Your task to perform on an android device: Is it going to rain today? Image 0: 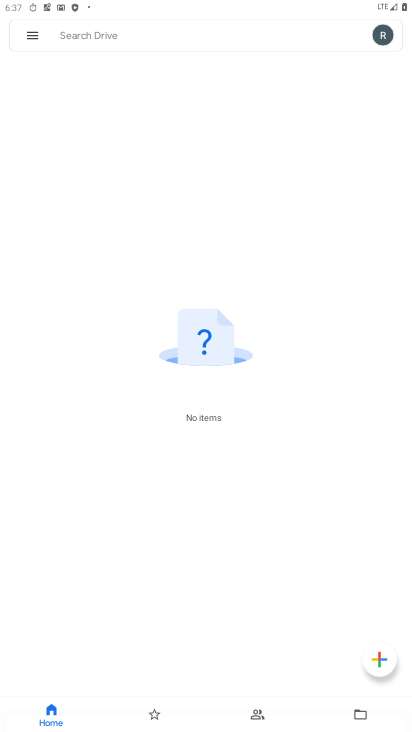
Step 0: press home button
Your task to perform on an android device: Is it going to rain today? Image 1: 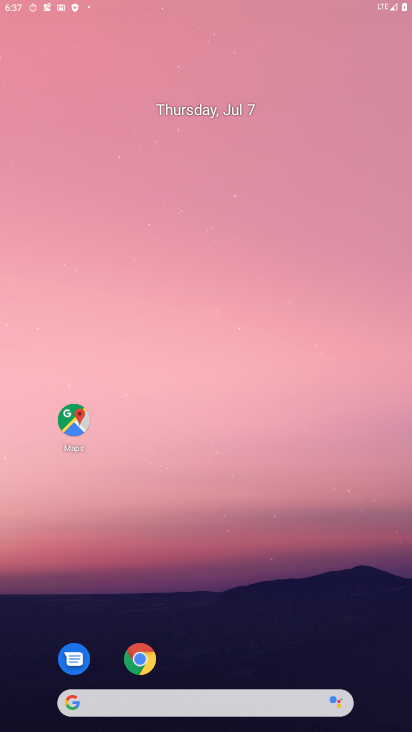
Step 1: drag from (378, 678) to (353, 11)
Your task to perform on an android device: Is it going to rain today? Image 2: 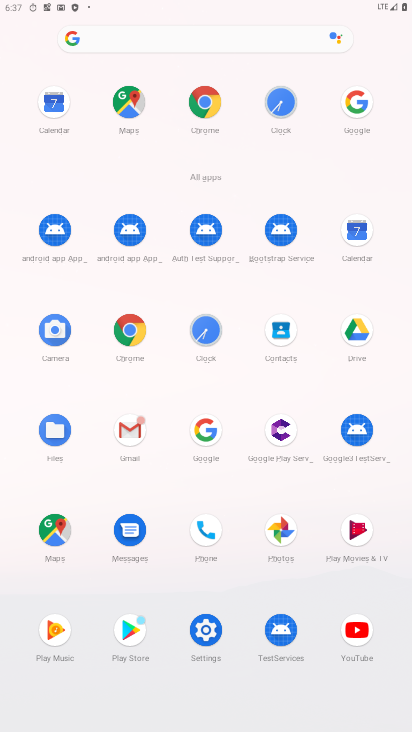
Step 2: click (194, 428)
Your task to perform on an android device: Is it going to rain today? Image 3: 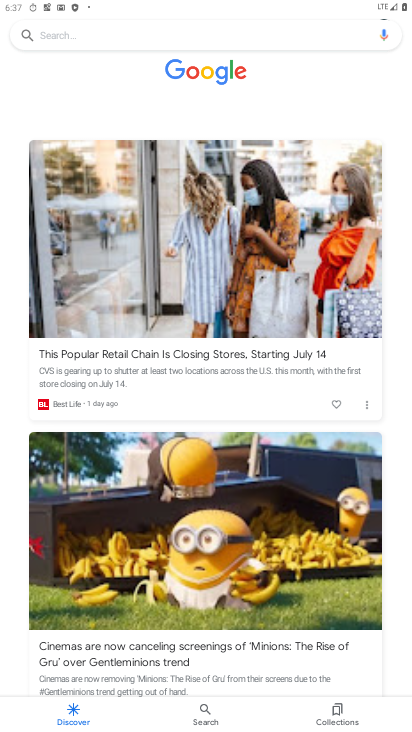
Step 3: click (172, 37)
Your task to perform on an android device: Is it going to rain today? Image 4: 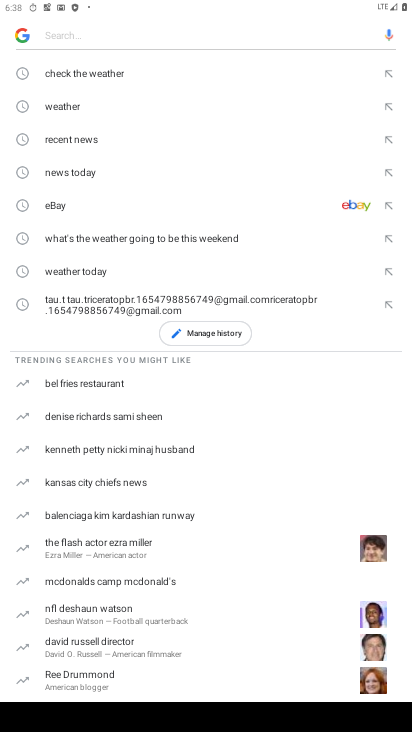
Step 4: type "Is it going to rain today?"
Your task to perform on an android device: Is it going to rain today? Image 5: 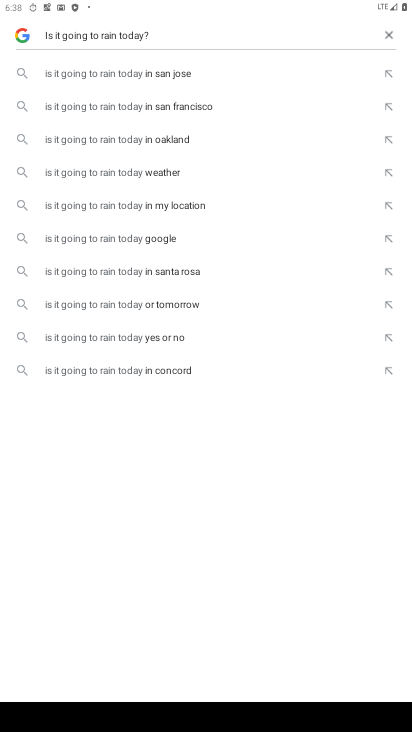
Step 5: click (123, 239)
Your task to perform on an android device: Is it going to rain today? Image 6: 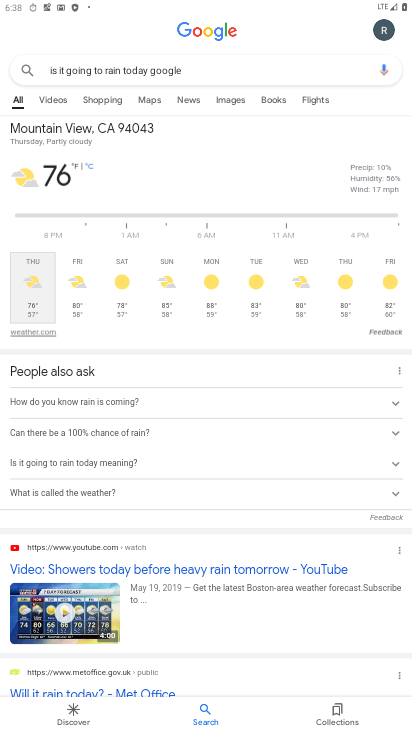
Step 6: task complete